Your task to perform on an android device: Set the phone to "Do not disturb". Image 0: 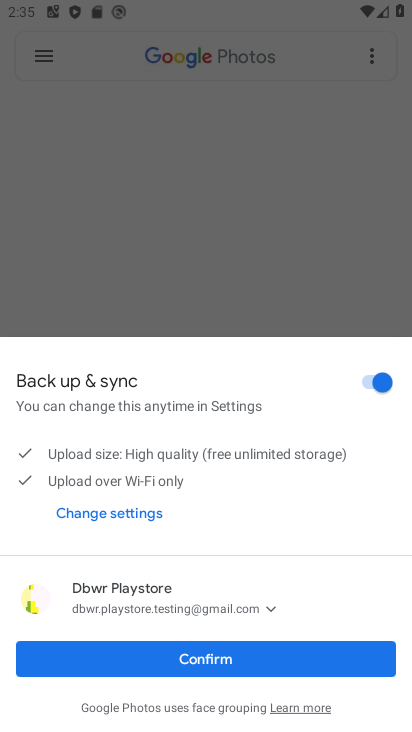
Step 0: drag from (243, 14) to (230, 369)
Your task to perform on an android device: Set the phone to "Do not disturb". Image 1: 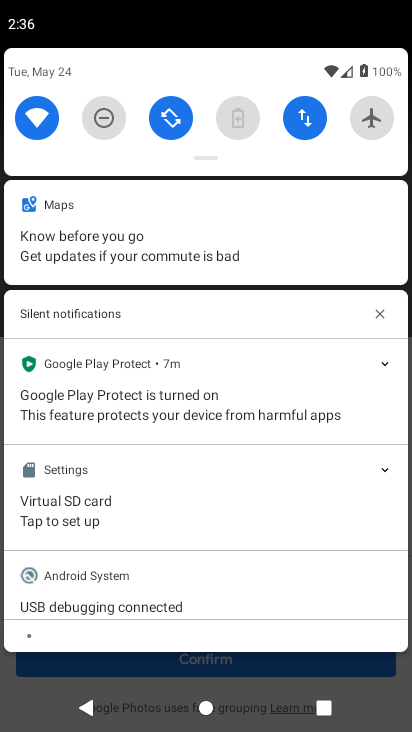
Step 1: click (110, 126)
Your task to perform on an android device: Set the phone to "Do not disturb". Image 2: 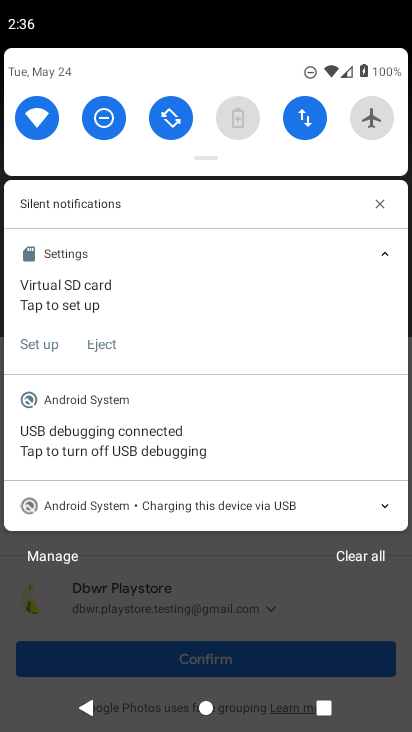
Step 2: task complete